Your task to perform on an android device: open app "Microsoft Authenticator" Image 0: 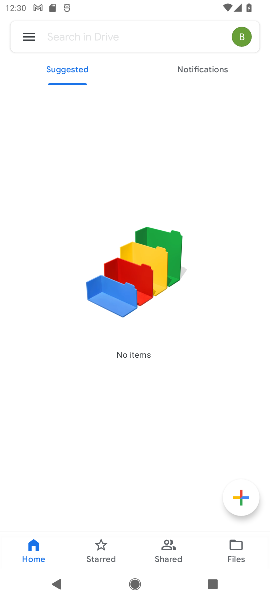
Step 0: press home button
Your task to perform on an android device: open app "Microsoft Authenticator" Image 1: 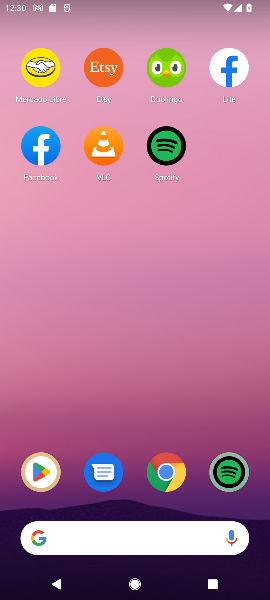
Step 1: click (37, 484)
Your task to perform on an android device: open app "Microsoft Authenticator" Image 2: 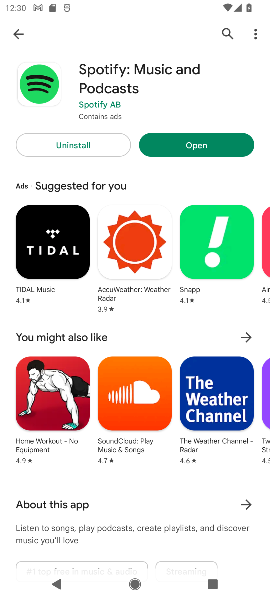
Step 2: click (227, 33)
Your task to perform on an android device: open app "Microsoft Authenticator" Image 3: 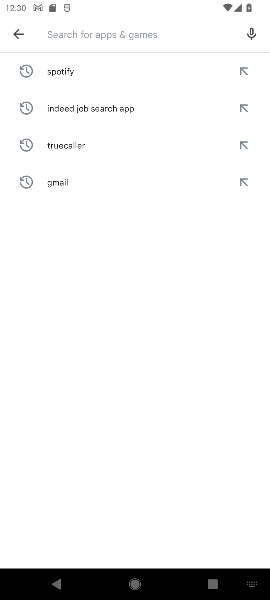
Step 3: type "microsoft authenticator"
Your task to perform on an android device: open app "Microsoft Authenticator" Image 4: 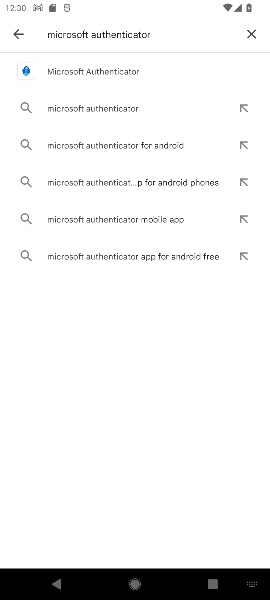
Step 4: click (178, 73)
Your task to perform on an android device: open app "Microsoft Authenticator" Image 5: 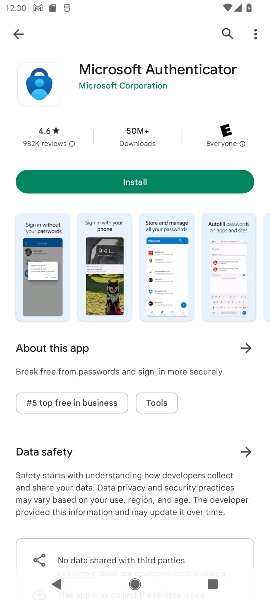
Step 5: task complete